Your task to perform on an android device: Go to sound settings Image 0: 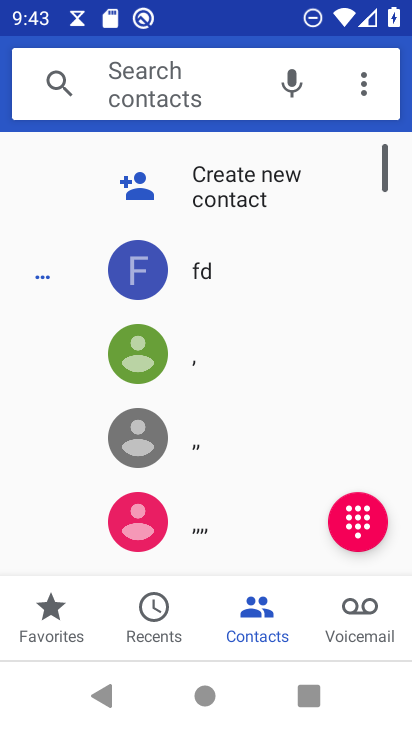
Step 0: press home button
Your task to perform on an android device: Go to sound settings Image 1: 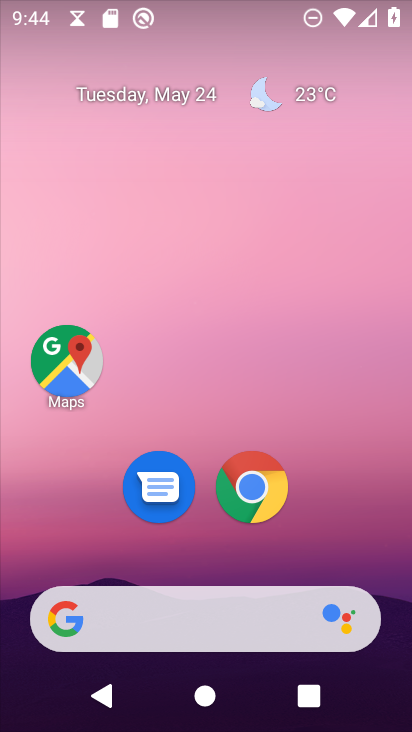
Step 1: drag from (37, 624) to (209, 134)
Your task to perform on an android device: Go to sound settings Image 2: 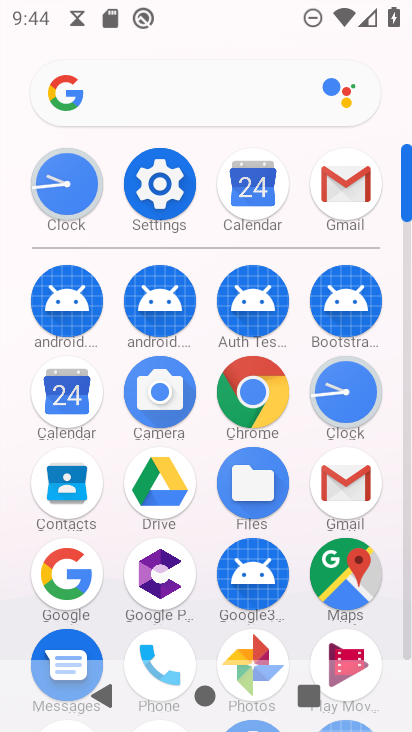
Step 2: click (155, 183)
Your task to perform on an android device: Go to sound settings Image 3: 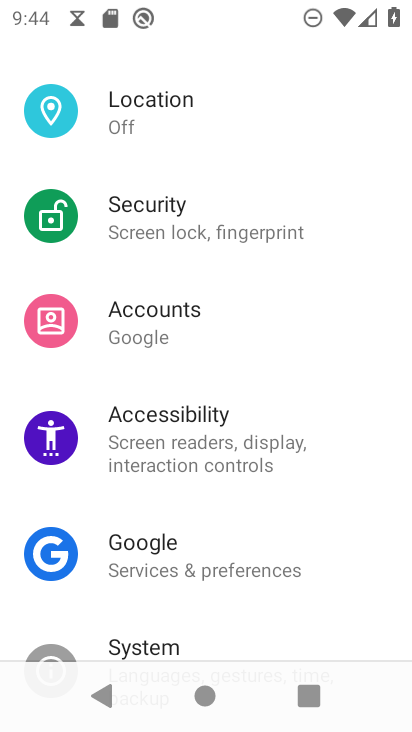
Step 3: drag from (161, 97) to (174, 528)
Your task to perform on an android device: Go to sound settings Image 4: 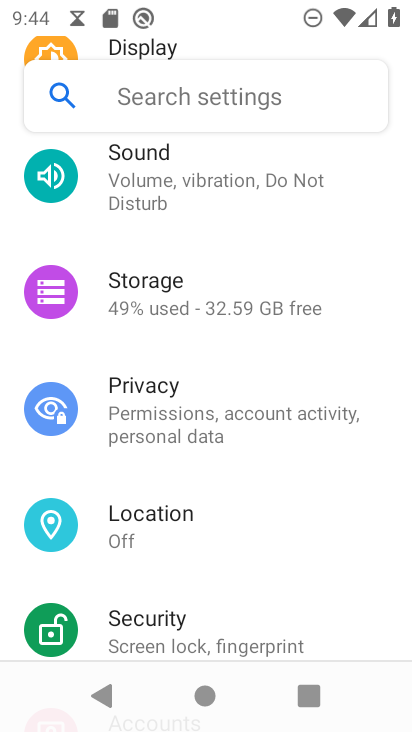
Step 4: click (147, 204)
Your task to perform on an android device: Go to sound settings Image 5: 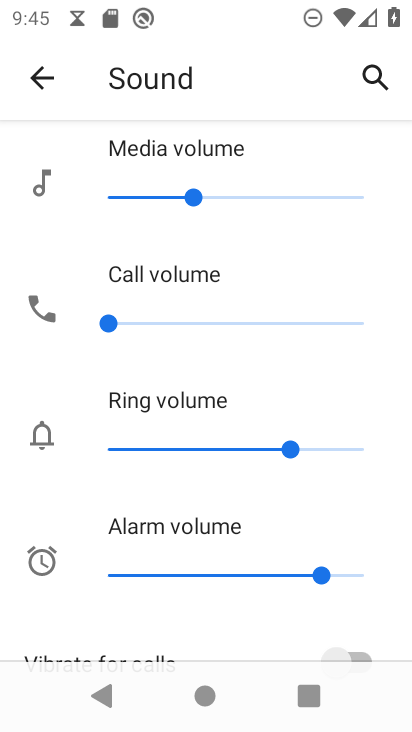
Step 5: task complete